Your task to perform on an android device: change the clock display to show seconds Image 0: 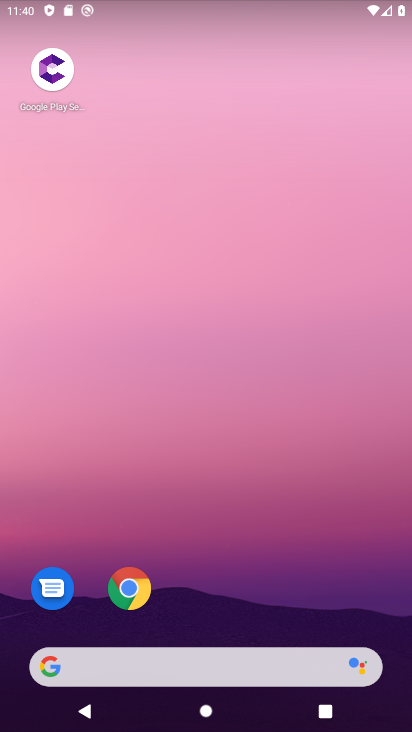
Step 0: drag from (248, 653) to (402, 11)
Your task to perform on an android device: change the clock display to show seconds Image 1: 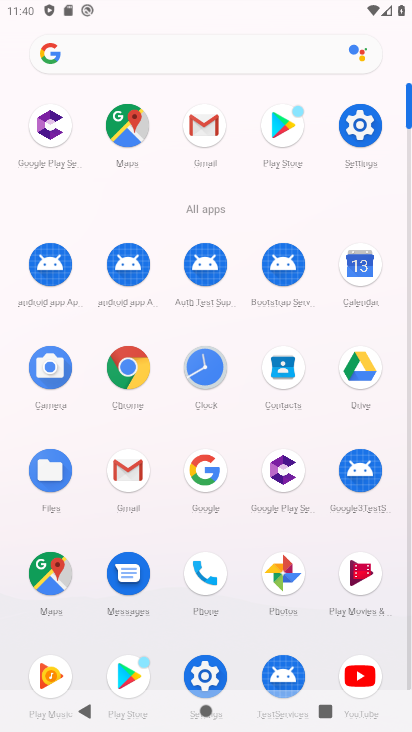
Step 1: click (216, 378)
Your task to perform on an android device: change the clock display to show seconds Image 2: 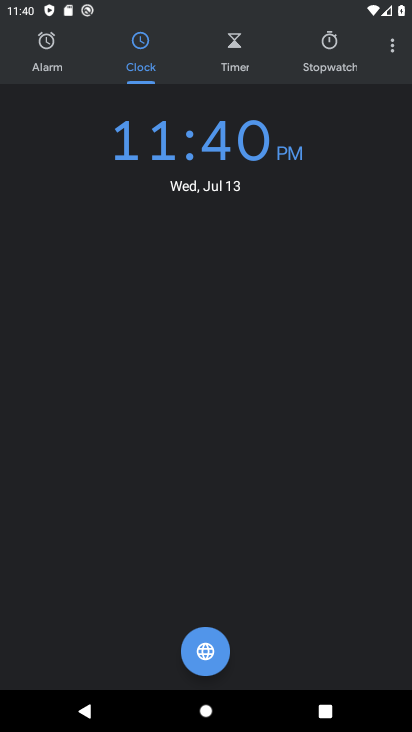
Step 2: click (396, 41)
Your task to perform on an android device: change the clock display to show seconds Image 3: 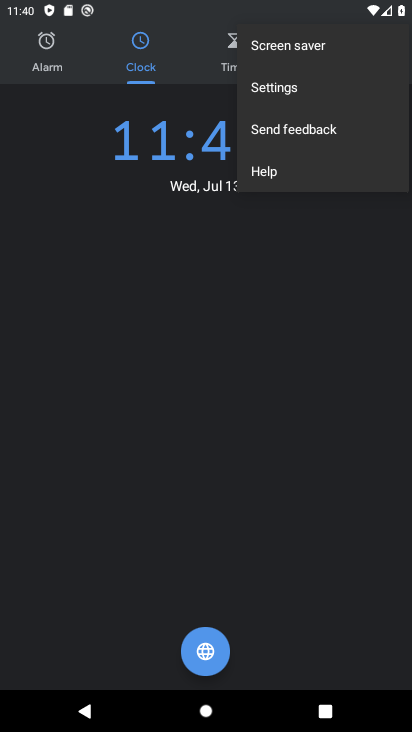
Step 3: click (348, 86)
Your task to perform on an android device: change the clock display to show seconds Image 4: 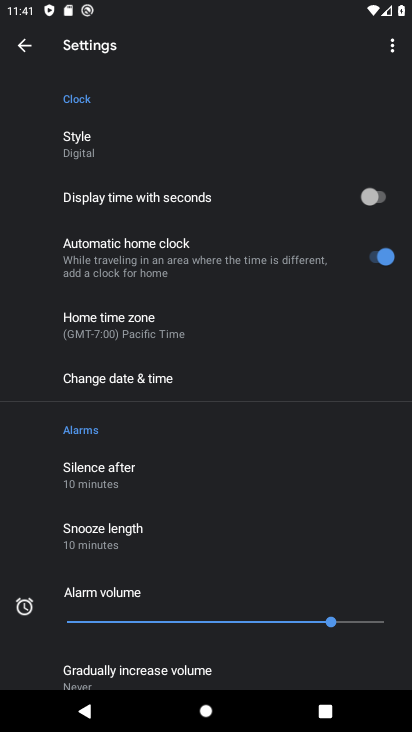
Step 4: click (385, 189)
Your task to perform on an android device: change the clock display to show seconds Image 5: 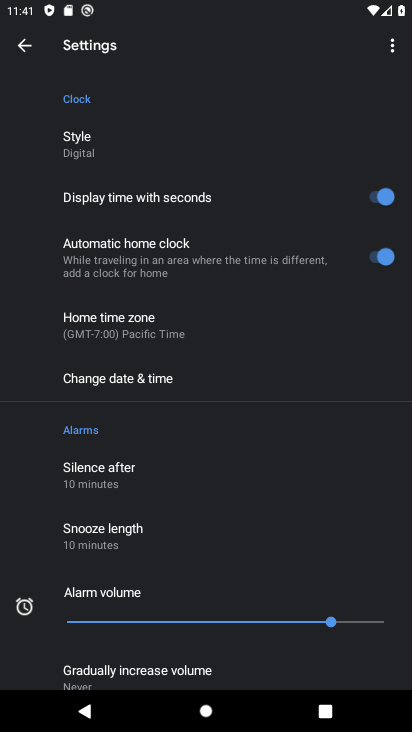
Step 5: task complete